Your task to perform on an android device: open app "Facebook Lite" Image 0: 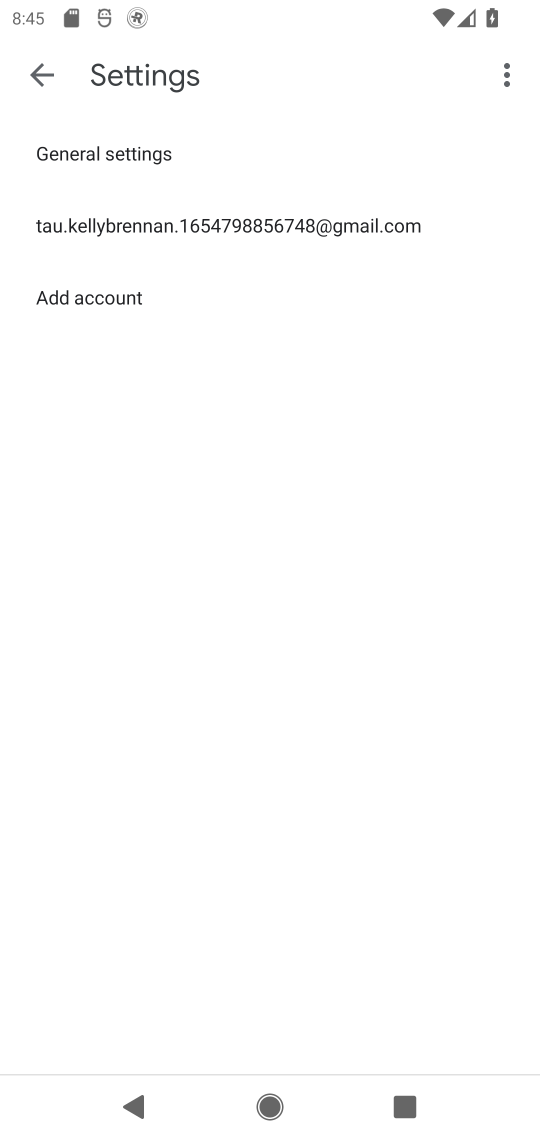
Step 0: press home button
Your task to perform on an android device: open app "Facebook Lite" Image 1: 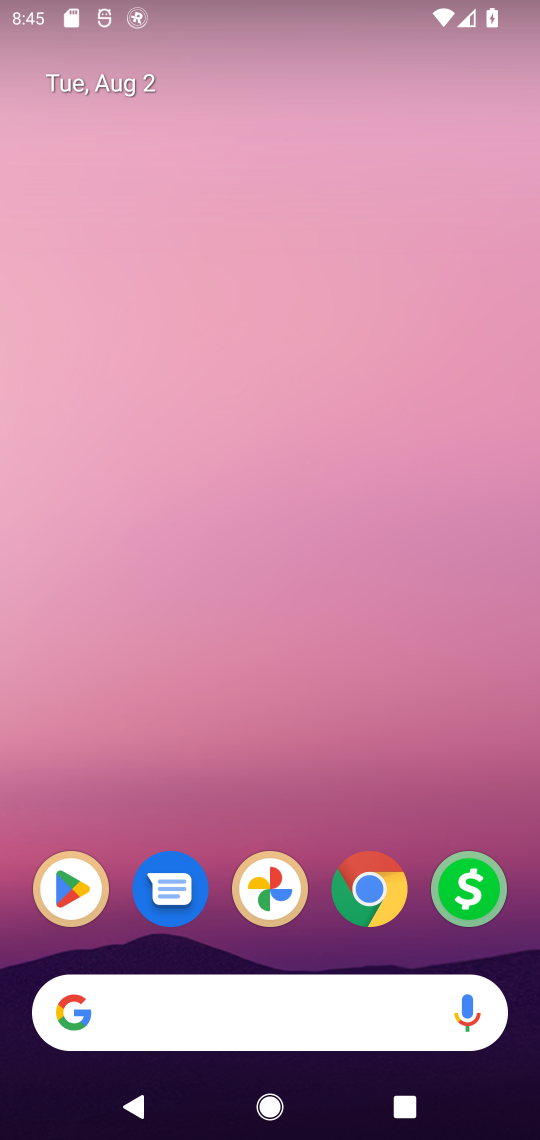
Step 1: click (67, 891)
Your task to perform on an android device: open app "Facebook Lite" Image 2: 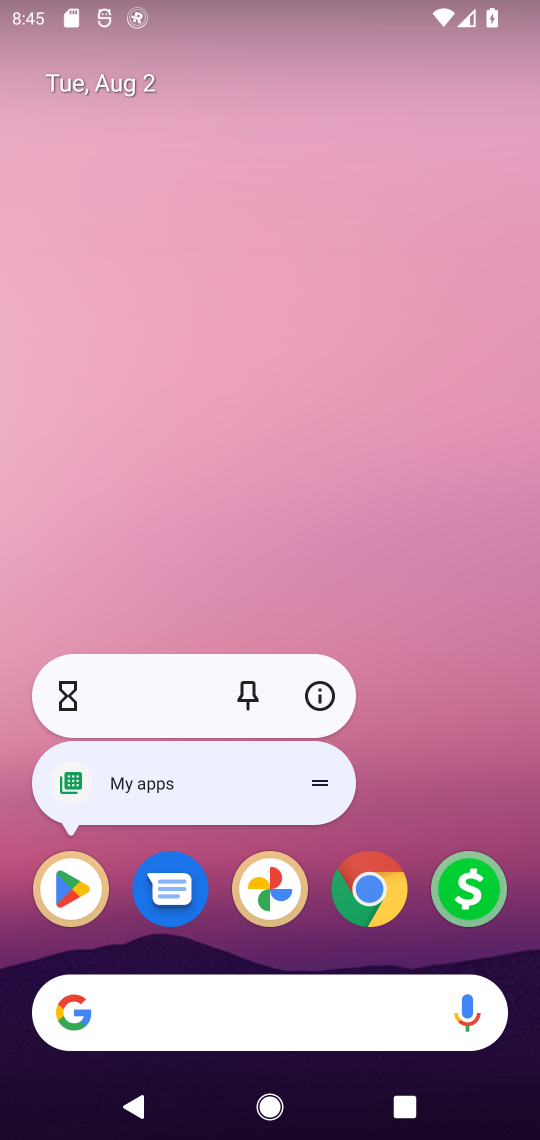
Step 2: click (67, 890)
Your task to perform on an android device: open app "Facebook Lite" Image 3: 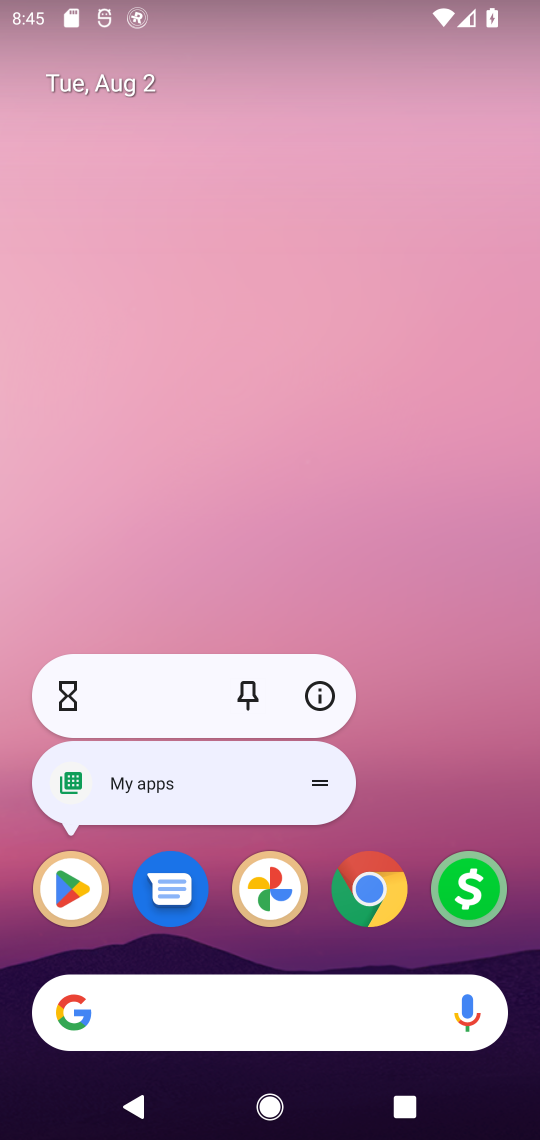
Step 3: click (67, 892)
Your task to perform on an android device: open app "Facebook Lite" Image 4: 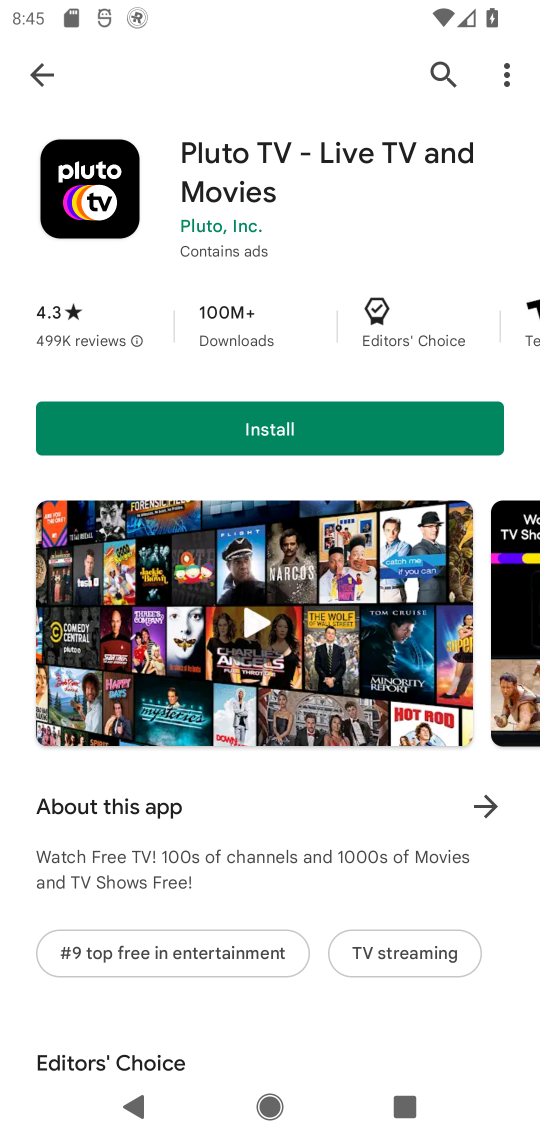
Step 4: click (444, 65)
Your task to perform on an android device: open app "Facebook Lite" Image 5: 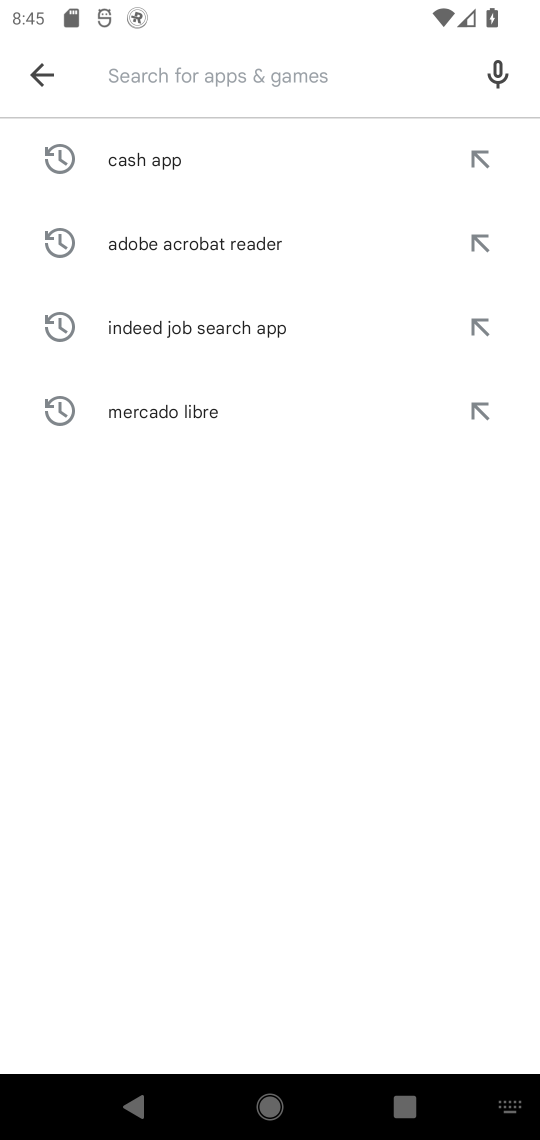
Step 5: type "Facebook Lite"
Your task to perform on an android device: open app "Facebook Lite" Image 6: 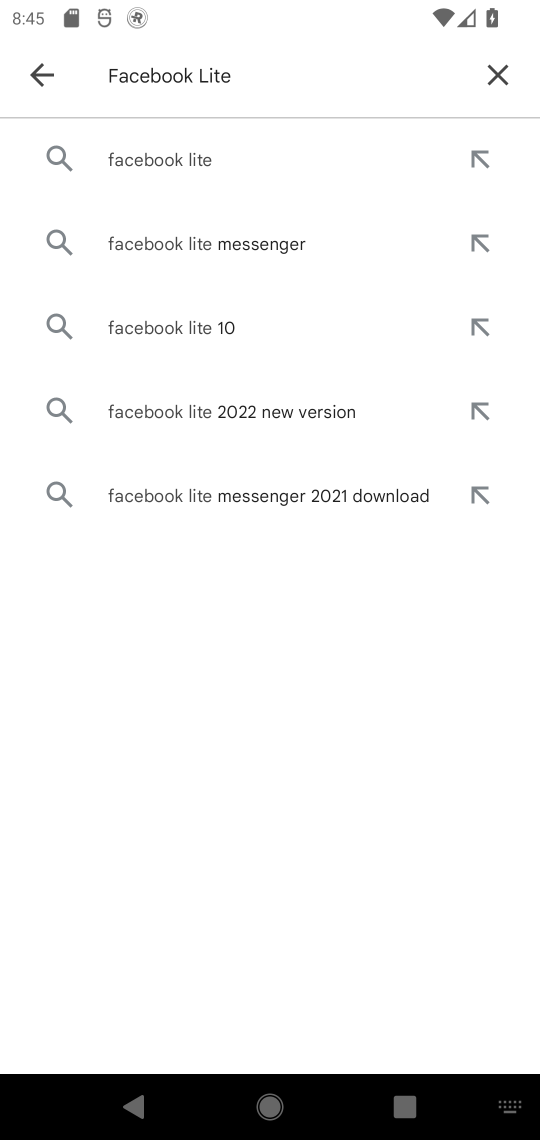
Step 6: click (169, 156)
Your task to perform on an android device: open app "Facebook Lite" Image 7: 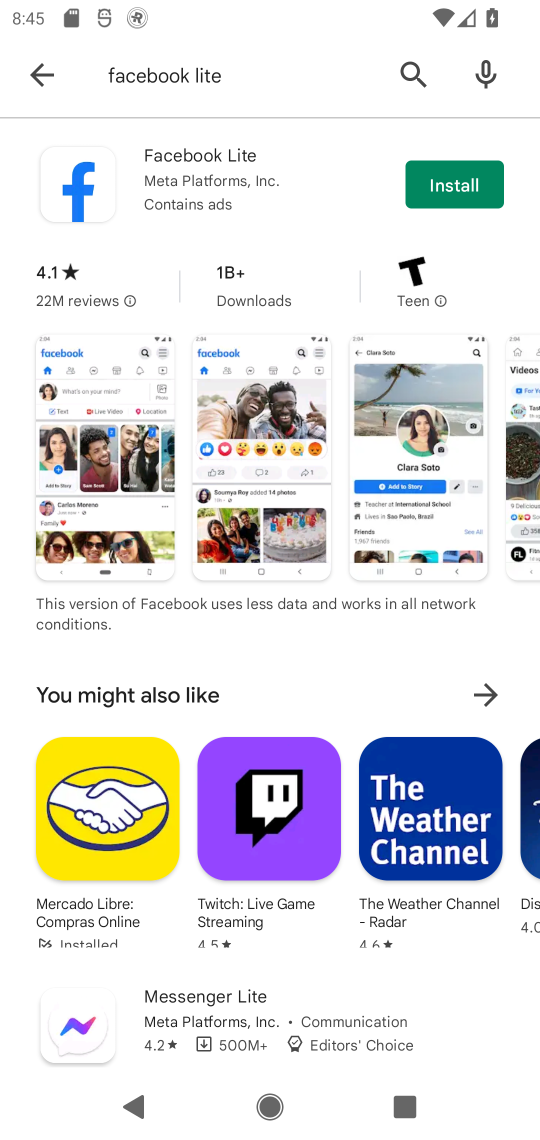
Step 7: task complete